Your task to perform on an android device: Look up "custom art" on Etsy Image 0: 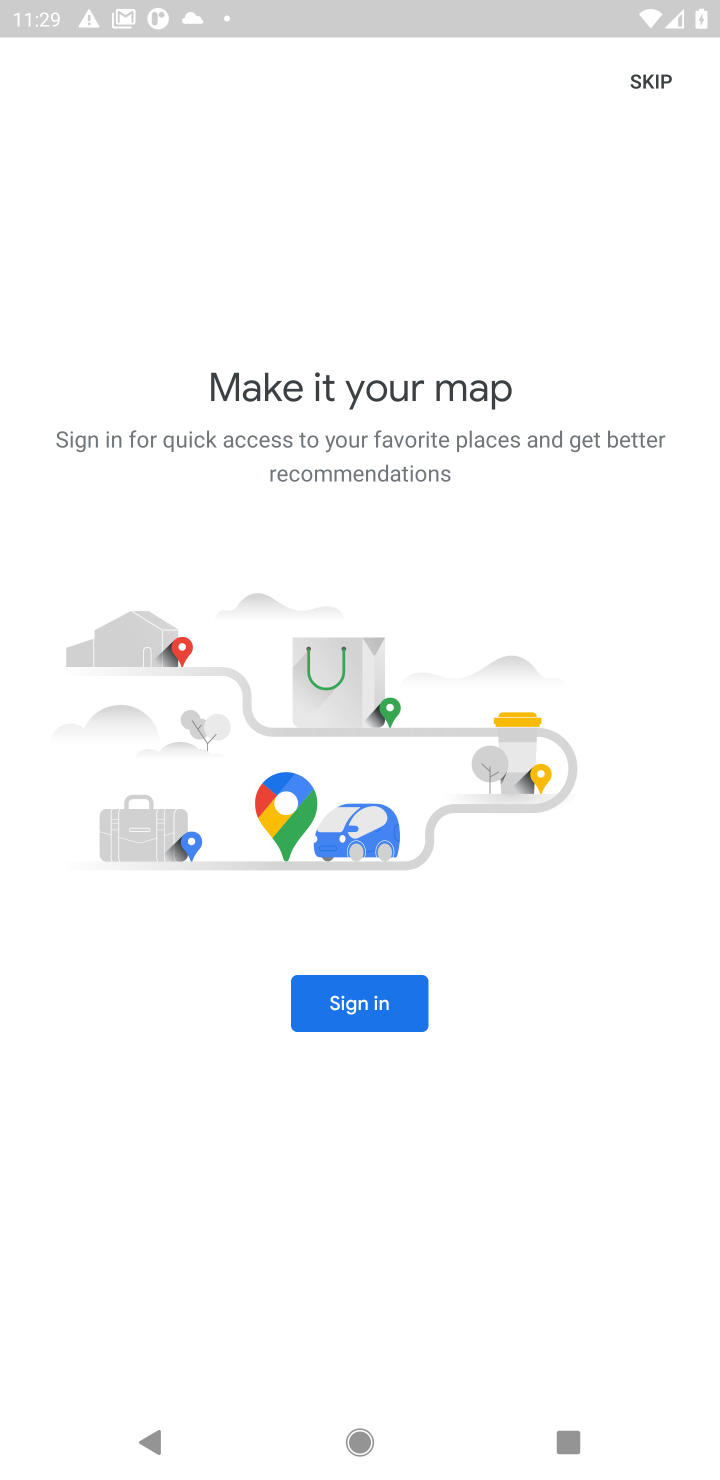
Step 0: click (639, 101)
Your task to perform on an android device: Look up "custom art" on Etsy Image 1: 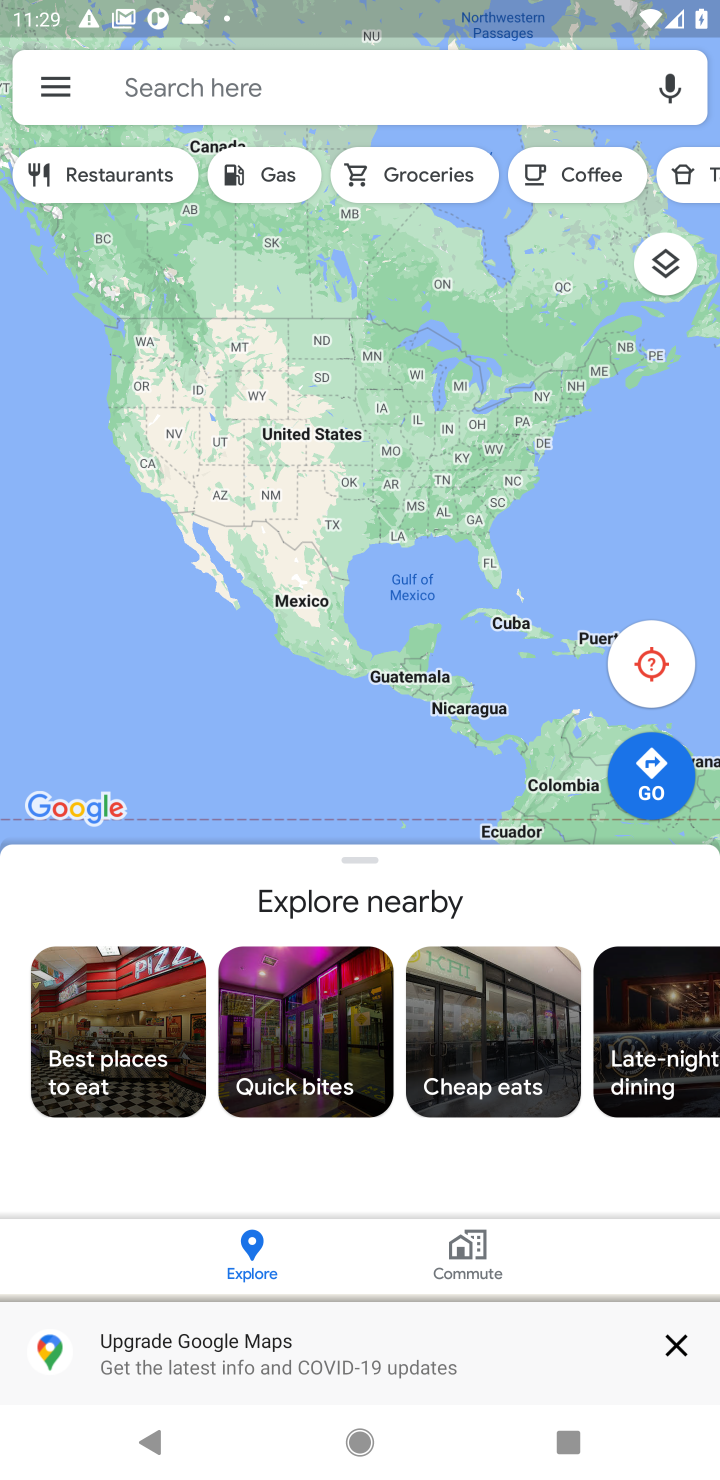
Step 1: press home button
Your task to perform on an android device: Look up "custom art" on Etsy Image 2: 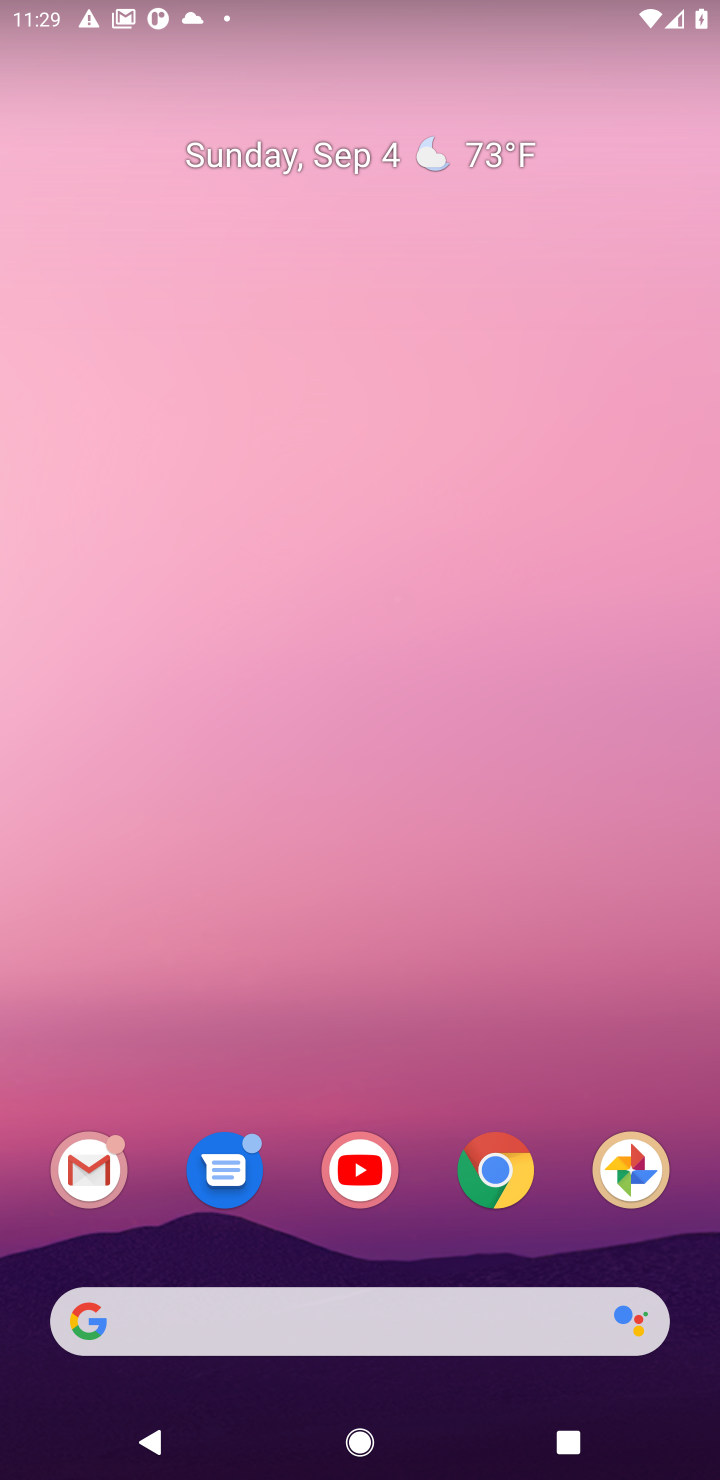
Step 2: click (345, 110)
Your task to perform on an android device: Look up "custom art" on Etsy Image 3: 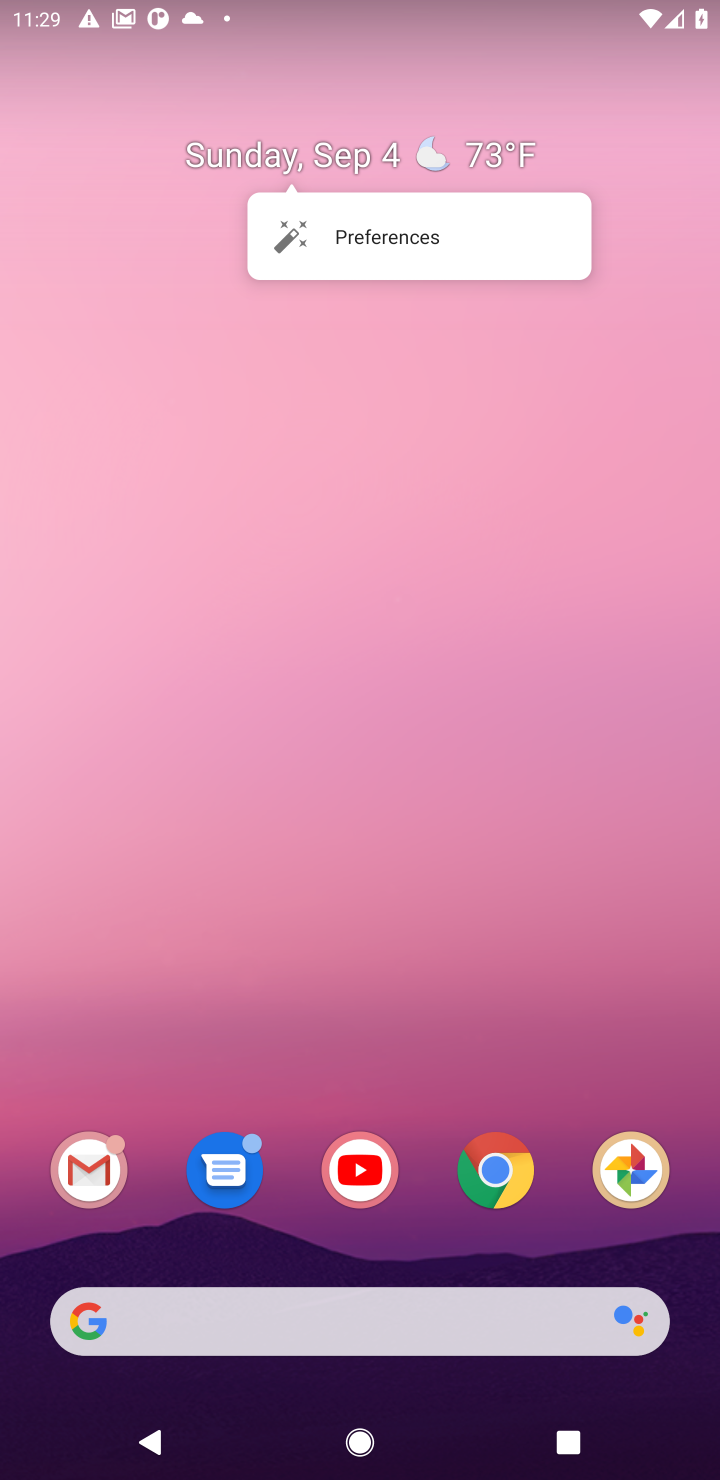
Step 3: click (419, 1242)
Your task to perform on an android device: Look up "custom art" on Etsy Image 4: 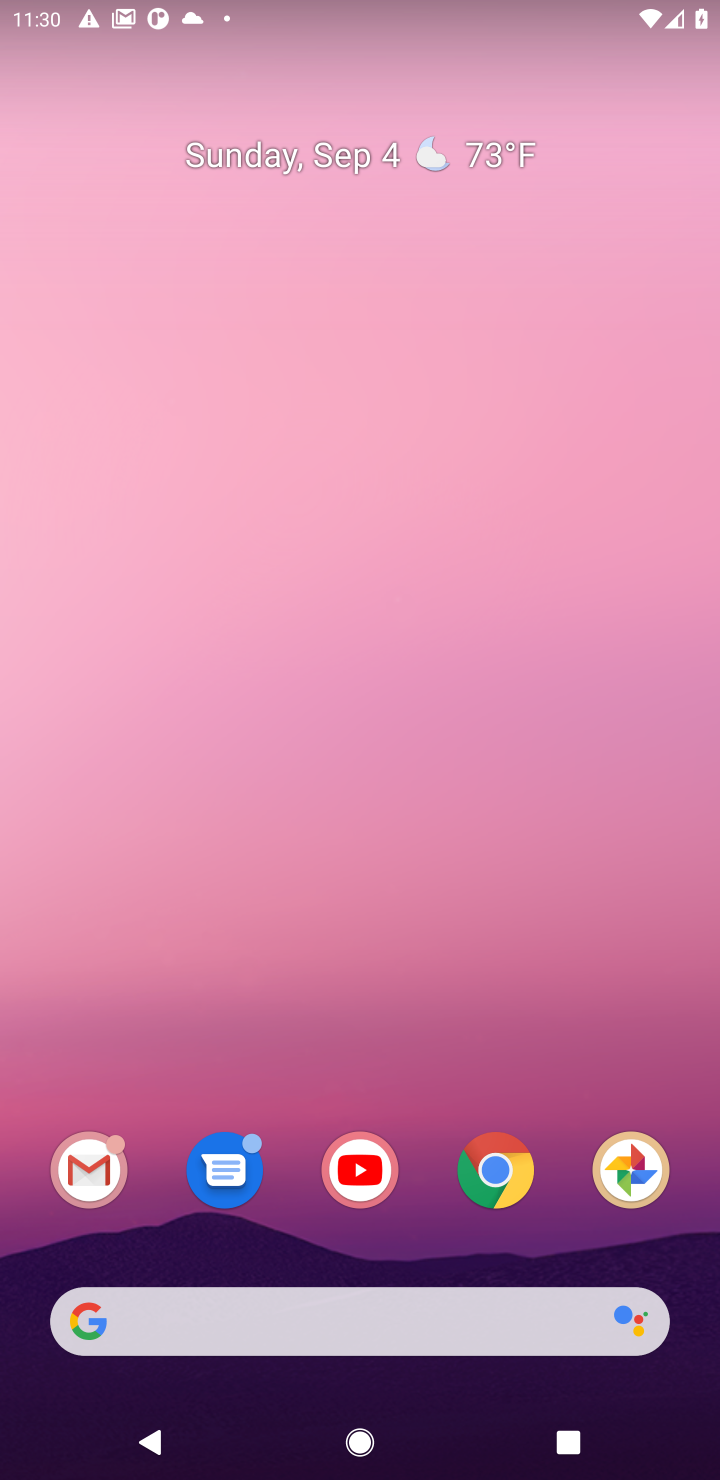
Step 4: drag from (419, 1242) to (32, 520)
Your task to perform on an android device: Look up "custom art" on Etsy Image 5: 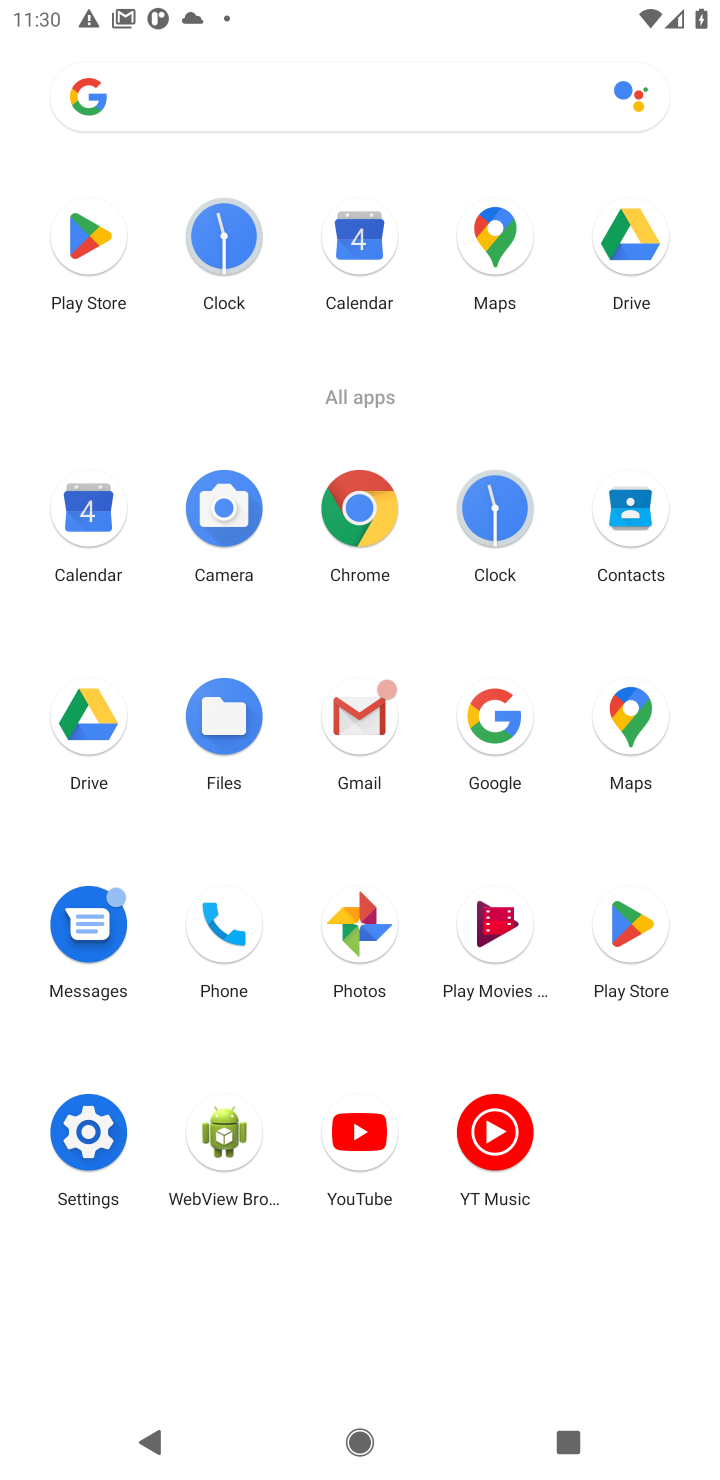
Step 5: click (376, 510)
Your task to perform on an android device: Look up "custom art" on Etsy Image 6: 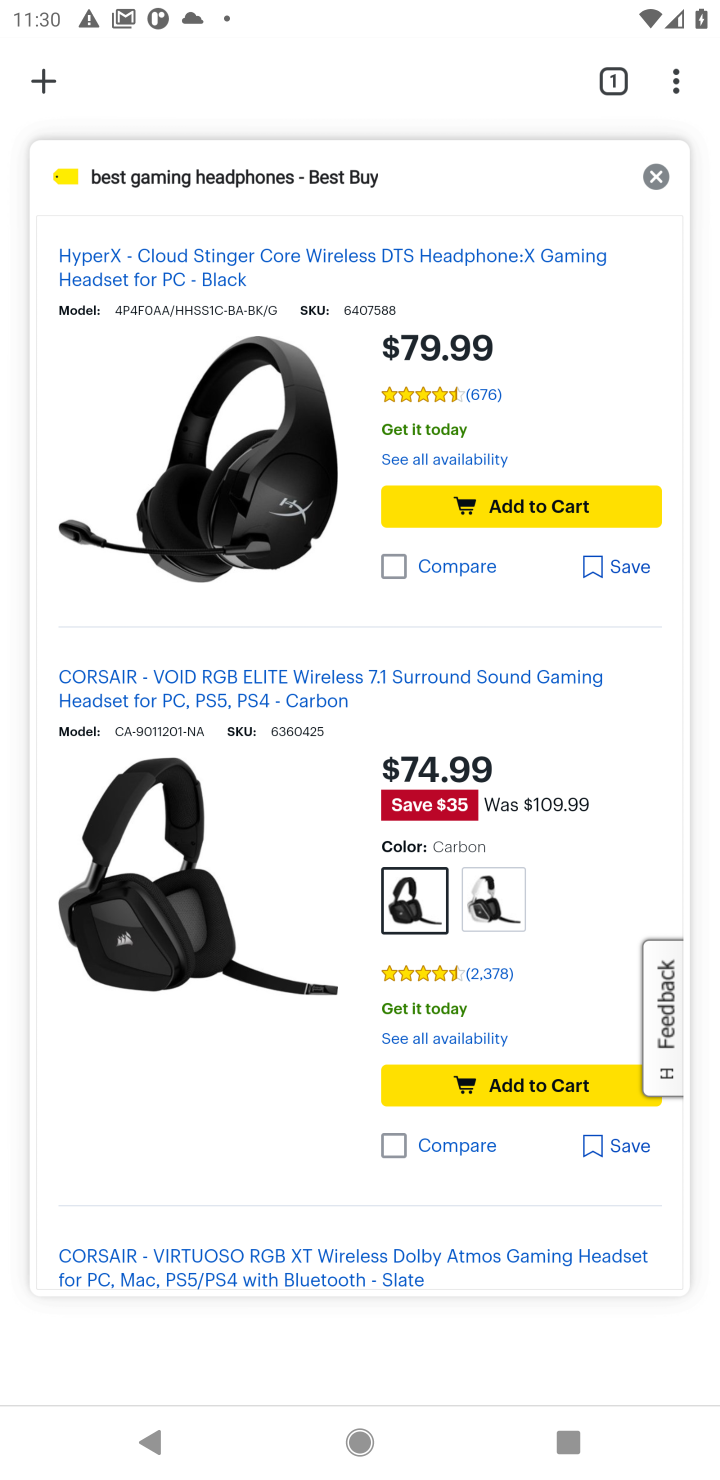
Step 6: click (30, 83)
Your task to perform on an android device: Look up "custom art" on Etsy Image 7: 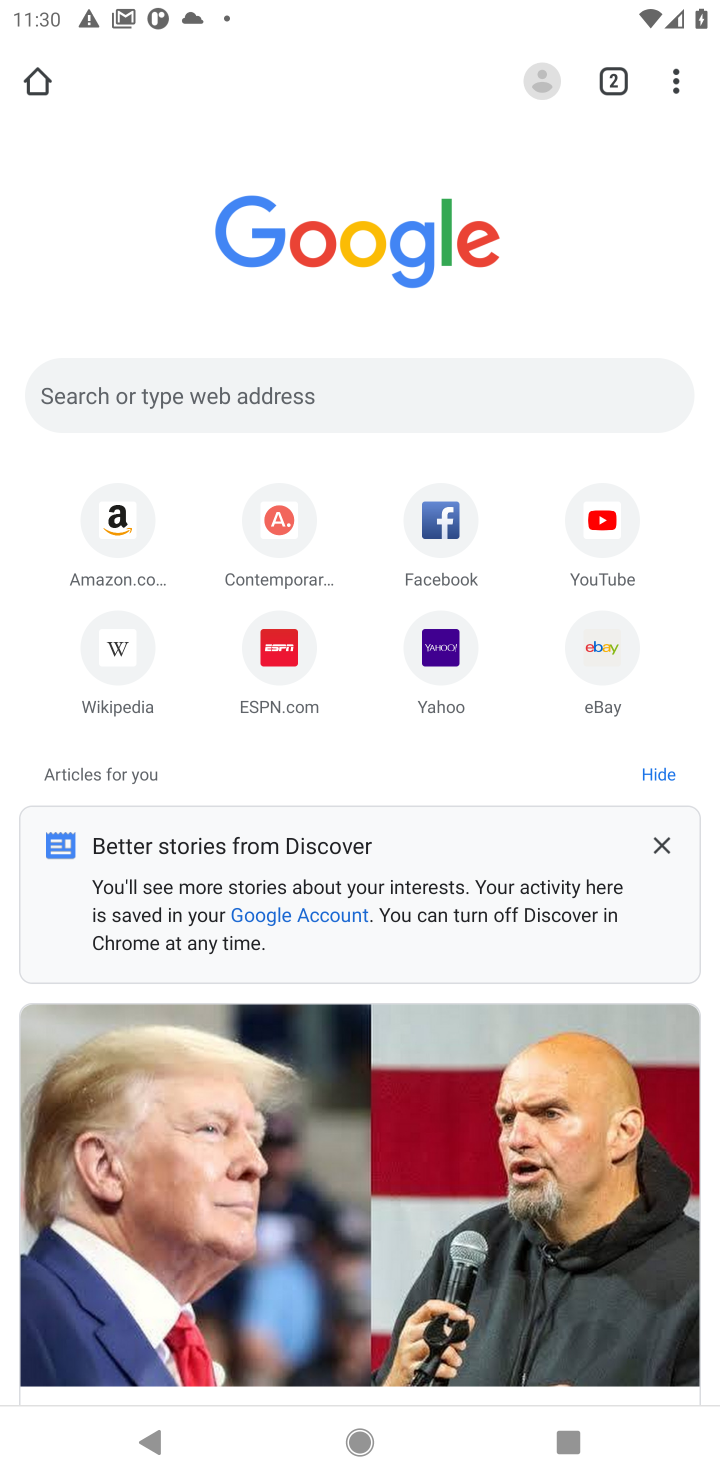
Step 7: click (254, 410)
Your task to perform on an android device: Look up "custom art" on Etsy Image 8: 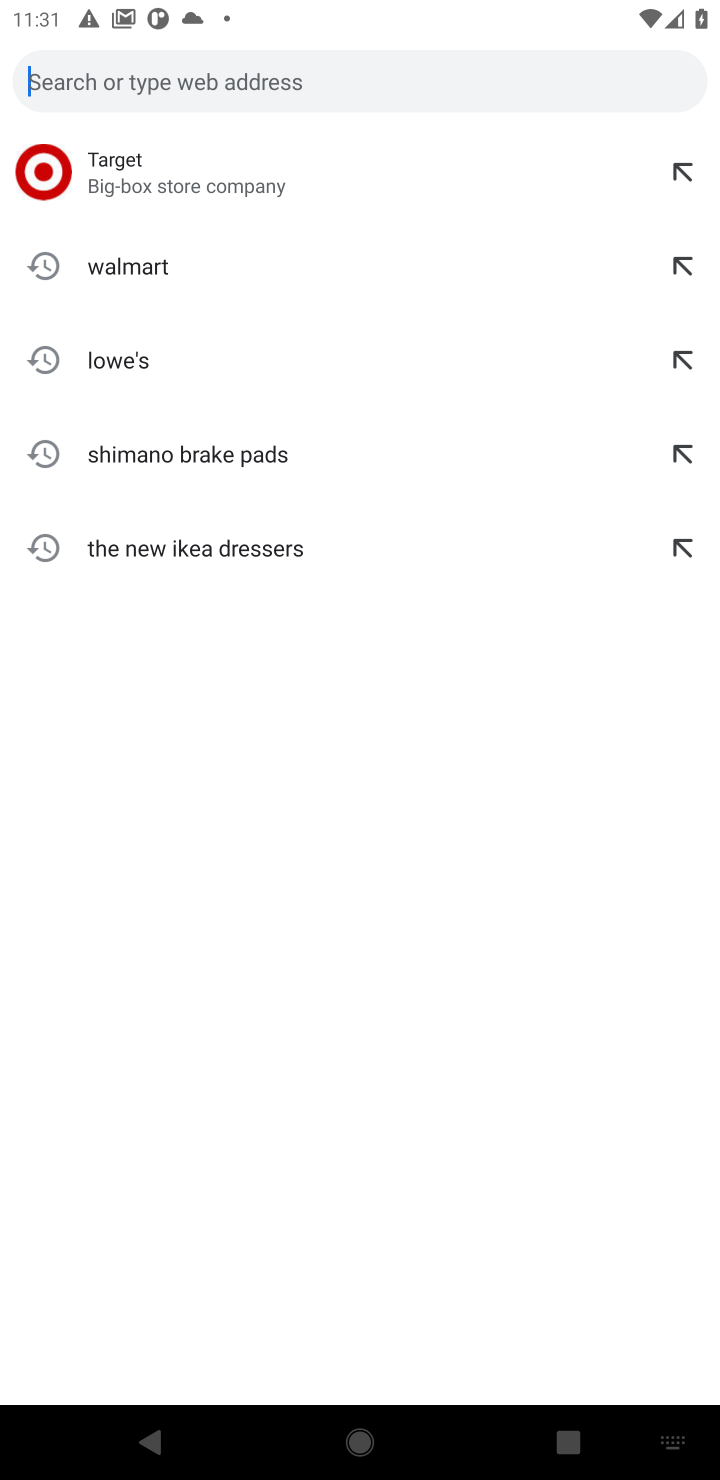
Step 8: type "Etsy"
Your task to perform on an android device: Look up "custom art" on Etsy Image 9: 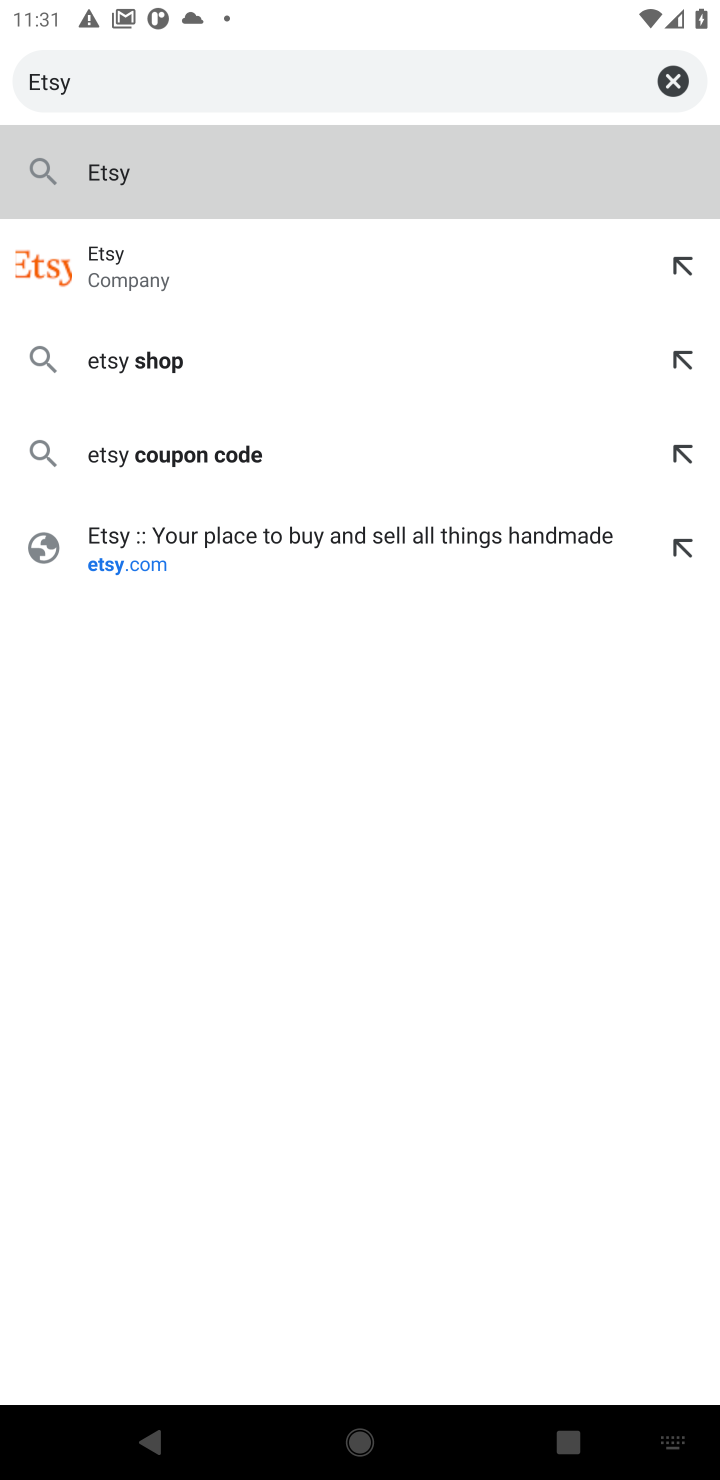
Step 9: click (248, 159)
Your task to perform on an android device: Look up "custom art" on Etsy Image 10: 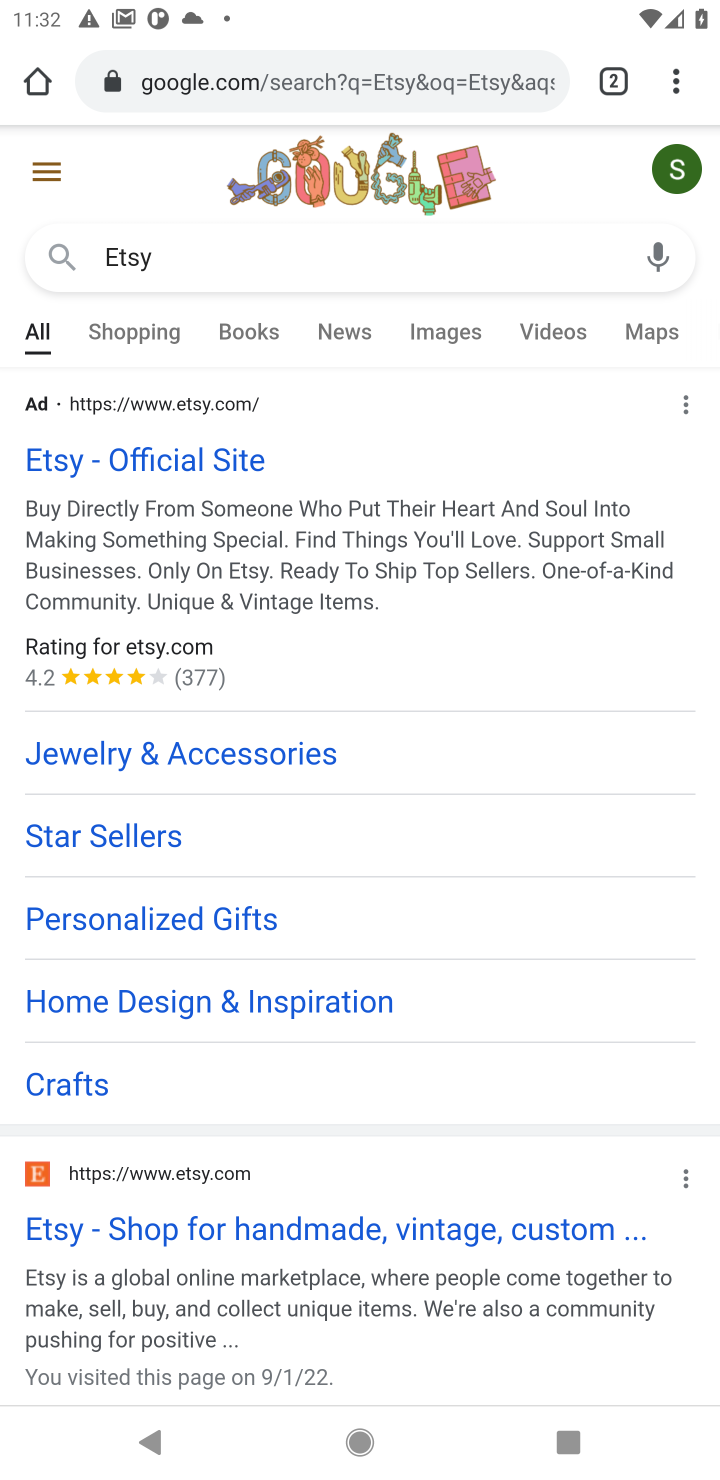
Step 10: click (88, 451)
Your task to perform on an android device: Look up "custom art" on Etsy Image 11: 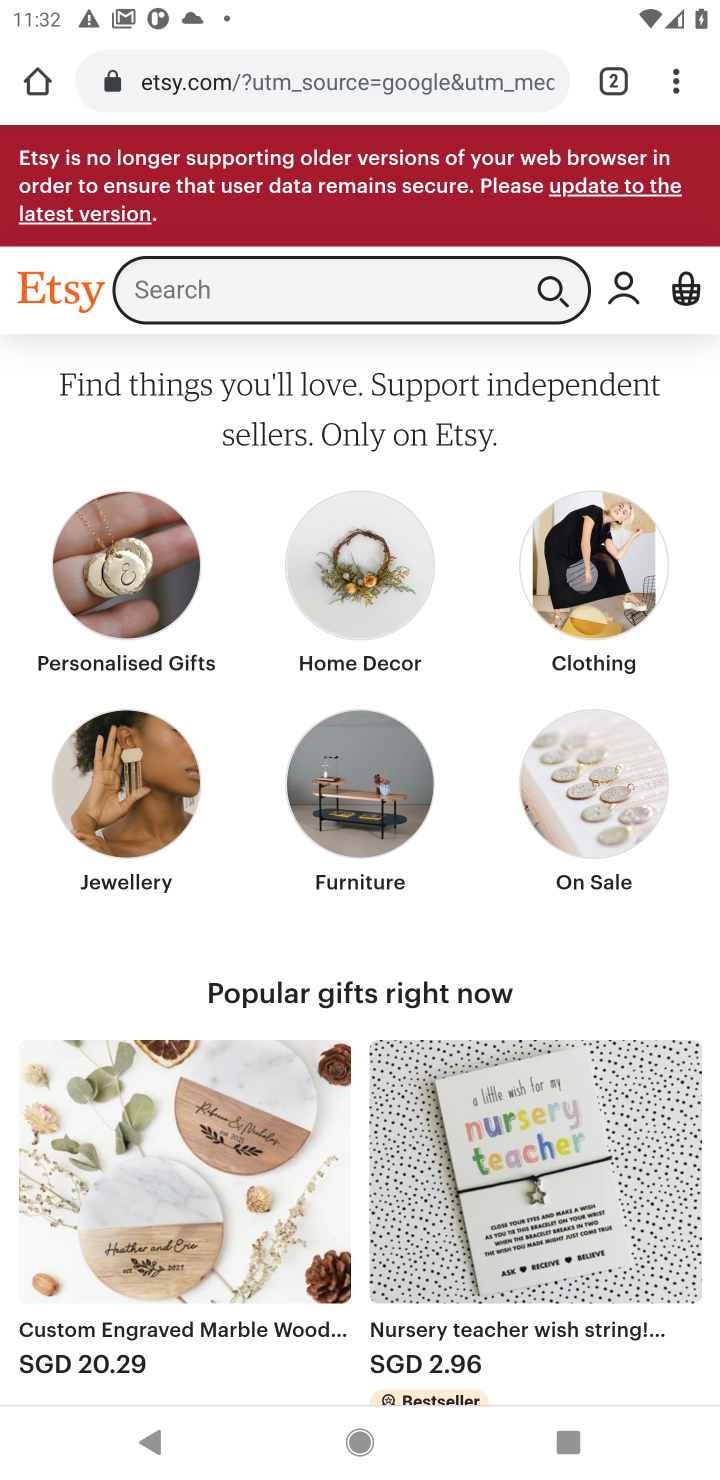
Step 11: drag from (408, 1060) to (320, 405)
Your task to perform on an android device: Look up "custom art" on Etsy Image 12: 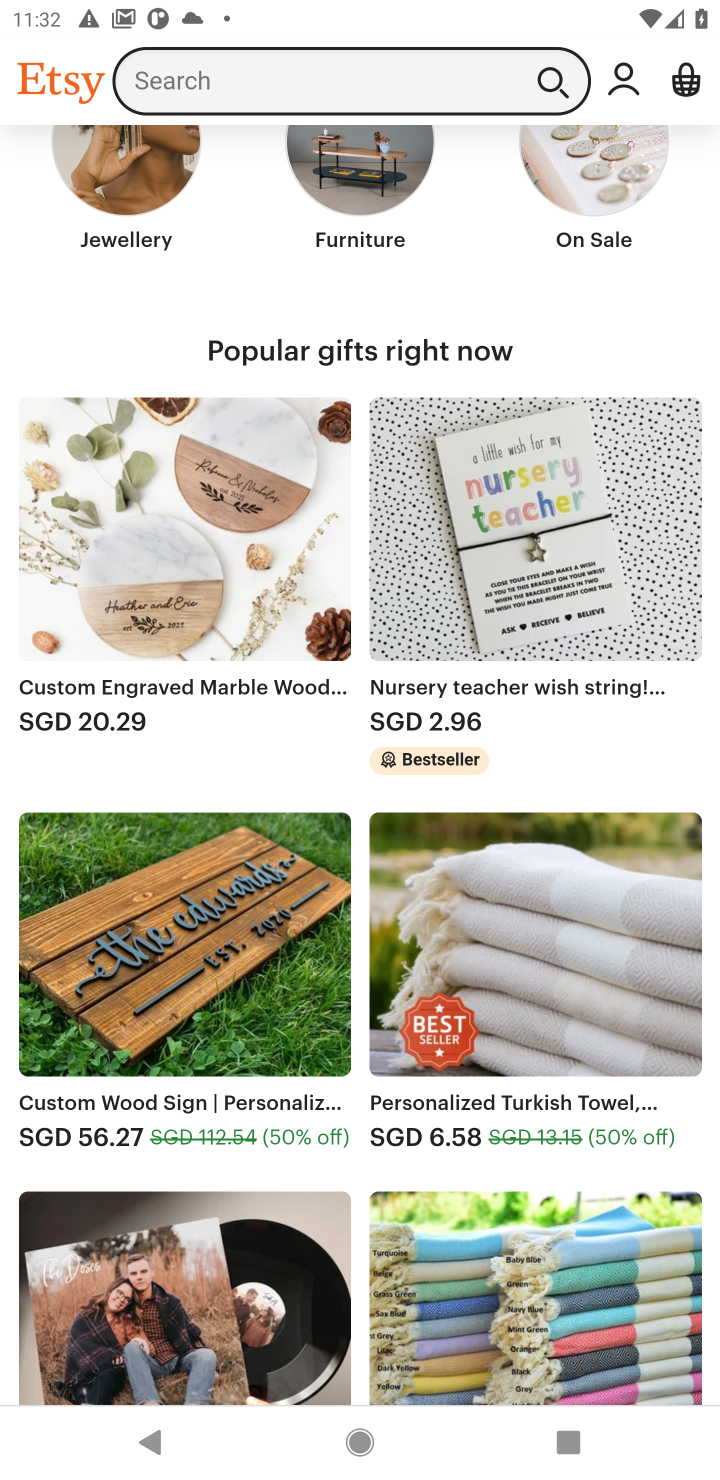
Step 12: click (268, 89)
Your task to perform on an android device: Look up "custom art" on Etsy Image 13: 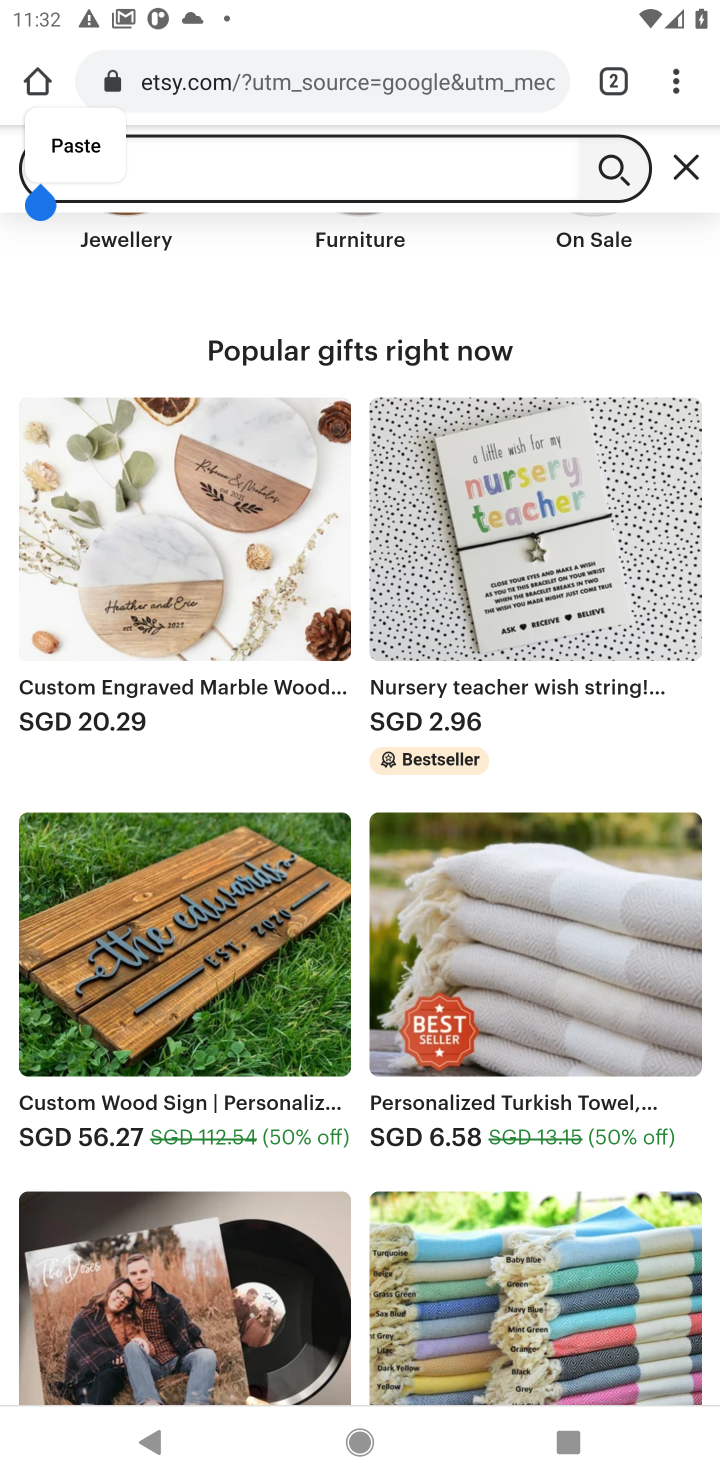
Step 13: click (147, 178)
Your task to perform on an android device: Look up "custom art" on Etsy Image 14: 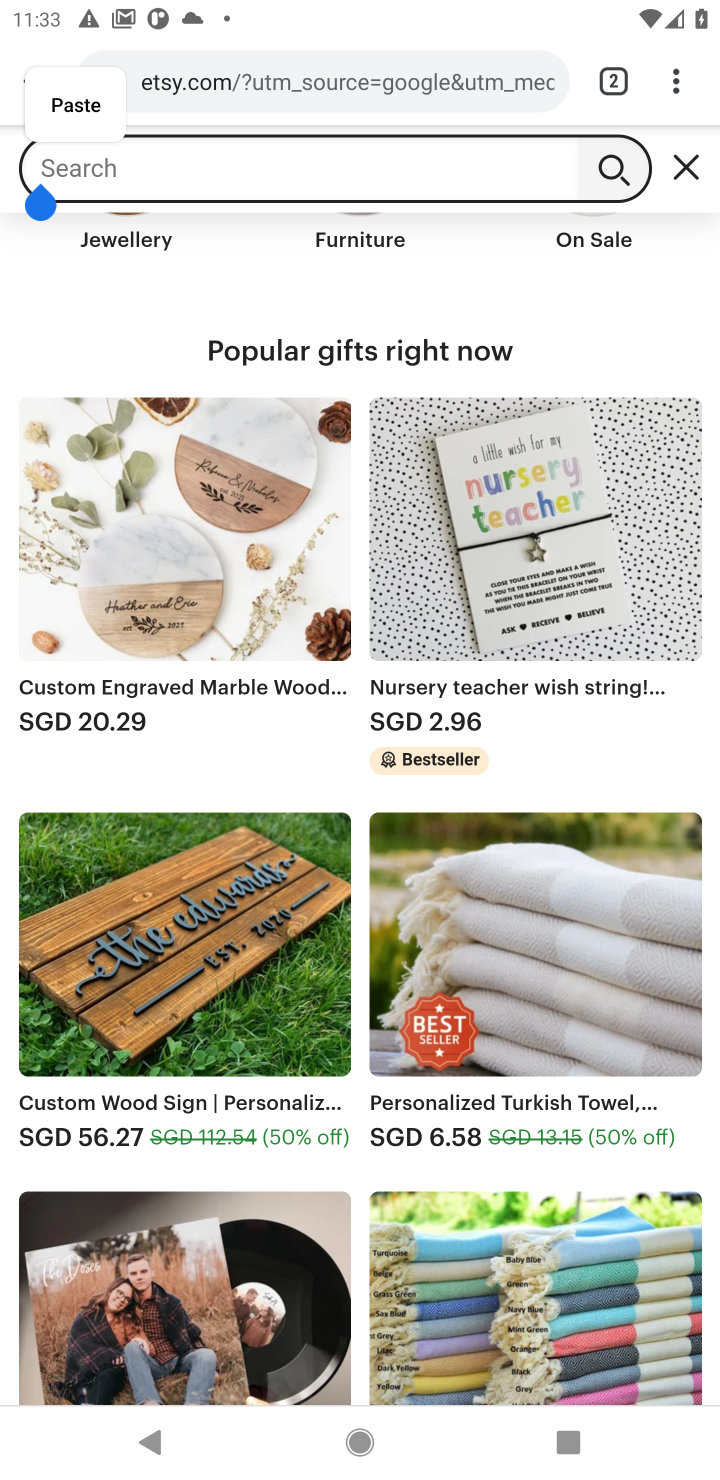
Step 14: type "custom art"
Your task to perform on an android device: Look up "custom art" on Etsy Image 15: 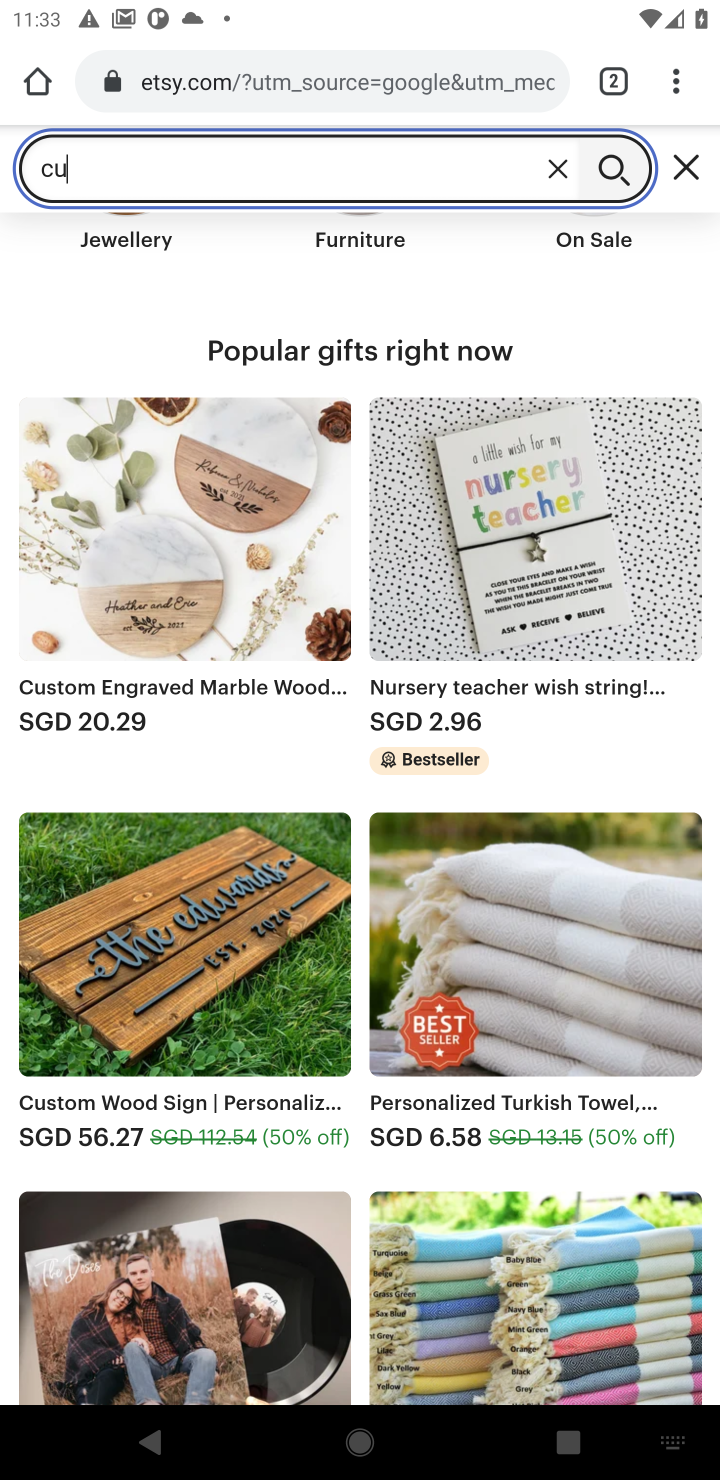
Step 15: click (594, 164)
Your task to perform on an android device: Look up "custom art" on Etsy Image 16: 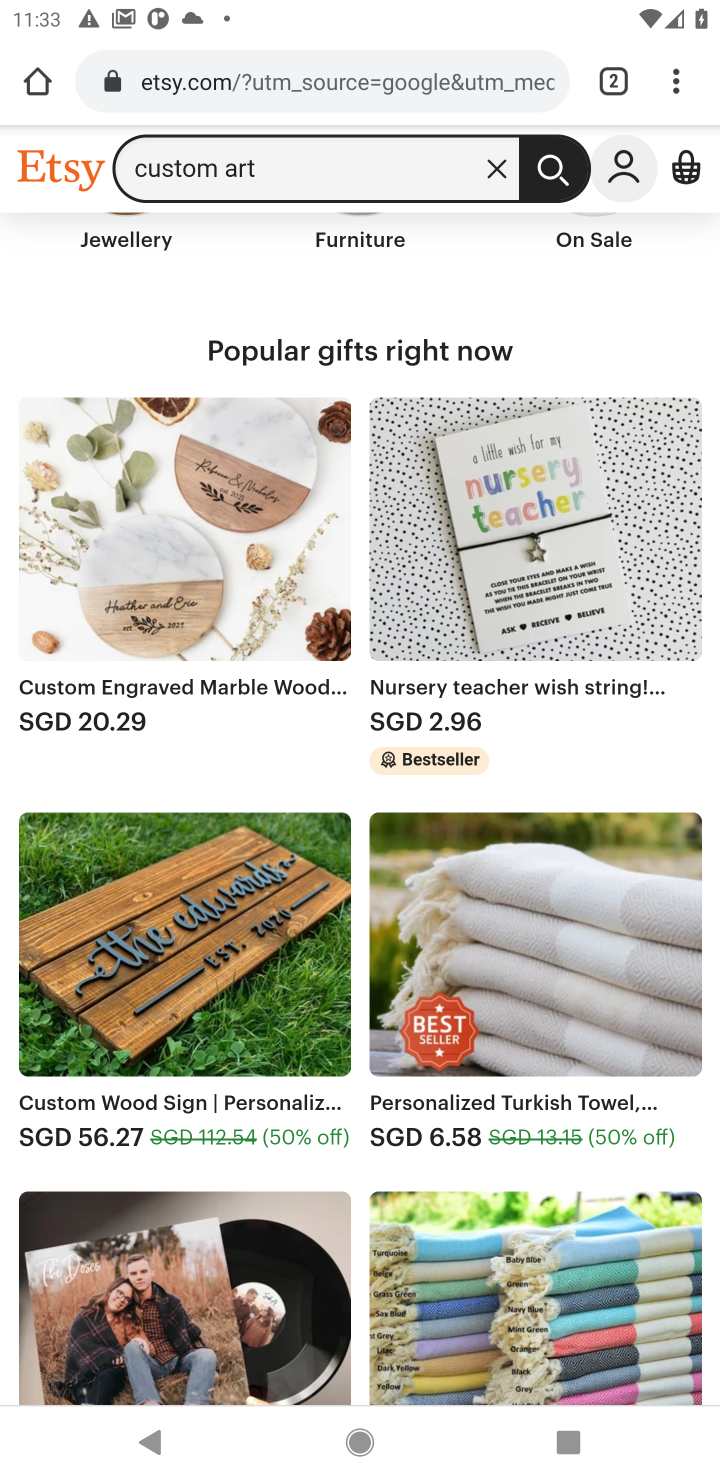
Step 16: click (538, 163)
Your task to perform on an android device: Look up "custom art" on Etsy Image 17: 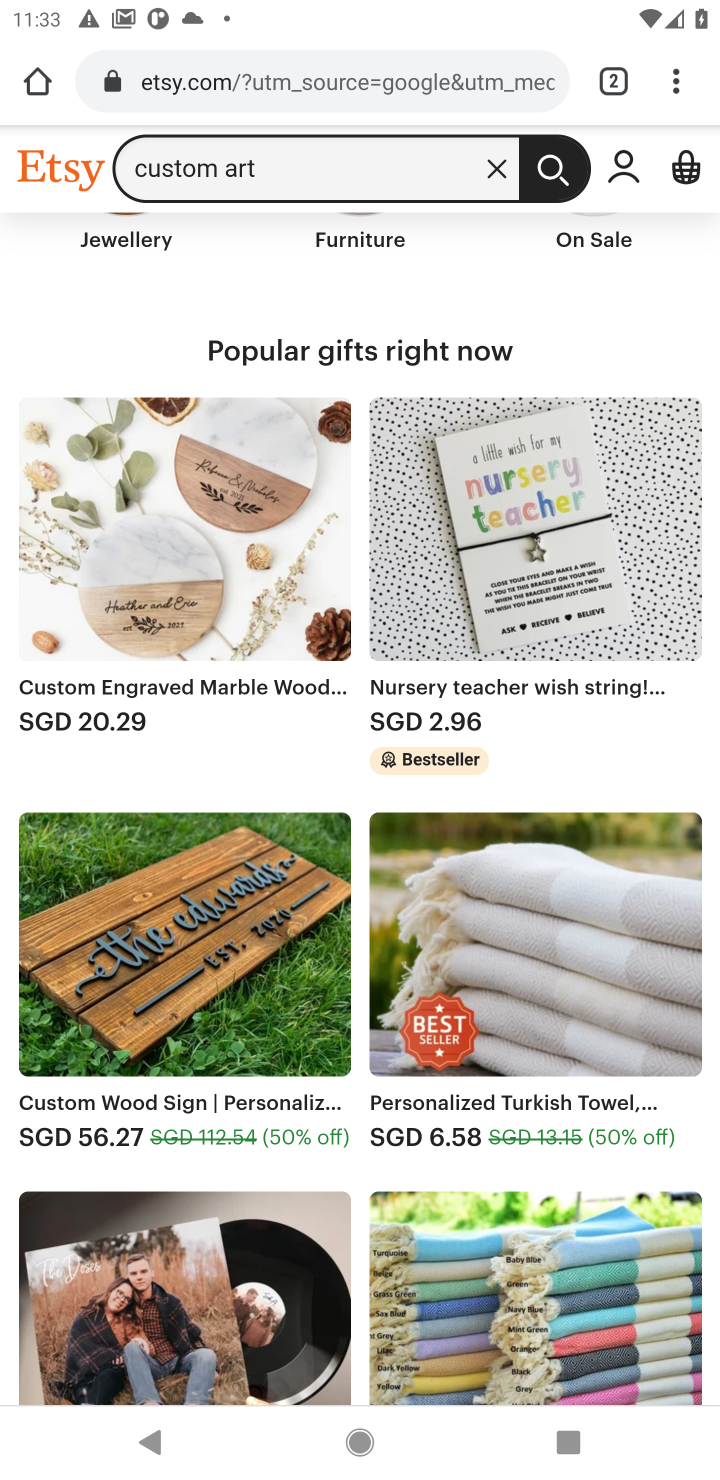
Step 17: task complete